Your task to perform on an android device: Do I have any events this weekend? Image 0: 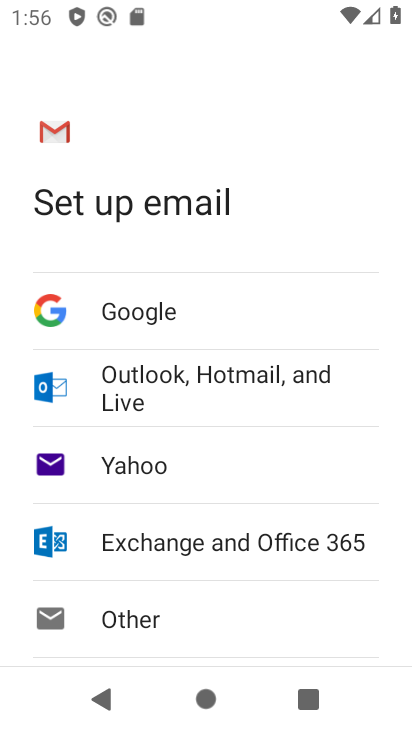
Step 0: press home button
Your task to perform on an android device: Do I have any events this weekend? Image 1: 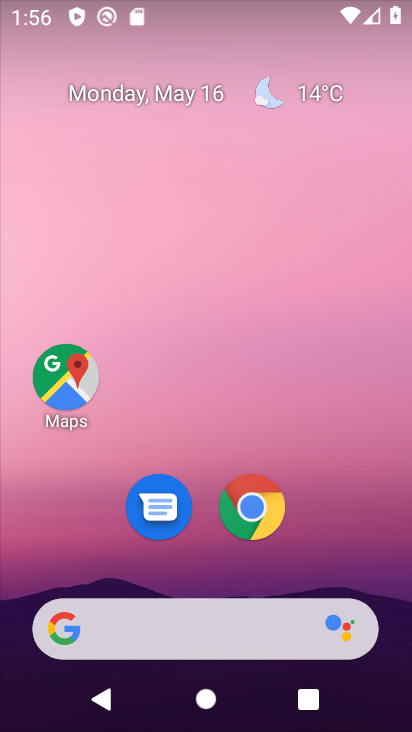
Step 1: drag from (283, 580) to (301, 218)
Your task to perform on an android device: Do I have any events this weekend? Image 2: 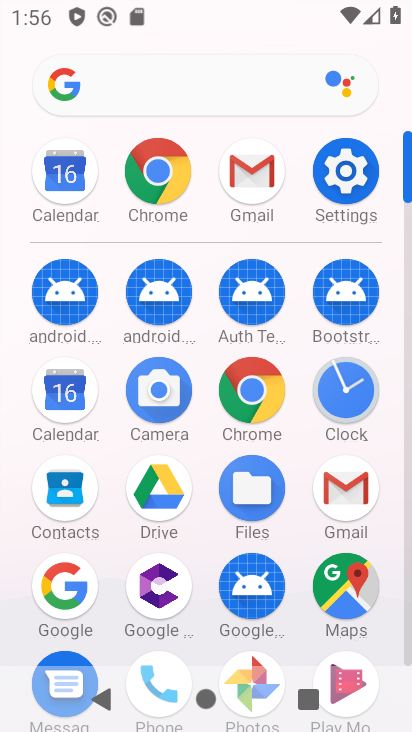
Step 2: click (70, 421)
Your task to perform on an android device: Do I have any events this weekend? Image 3: 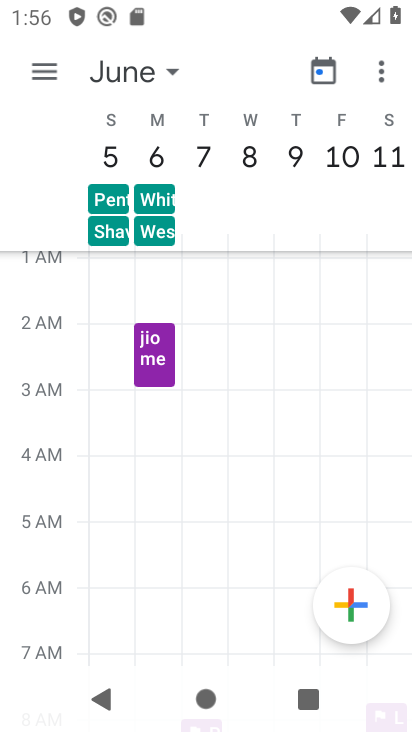
Step 3: click (168, 74)
Your task to perform on an android device: Do I have any events this weekend? Image 4: 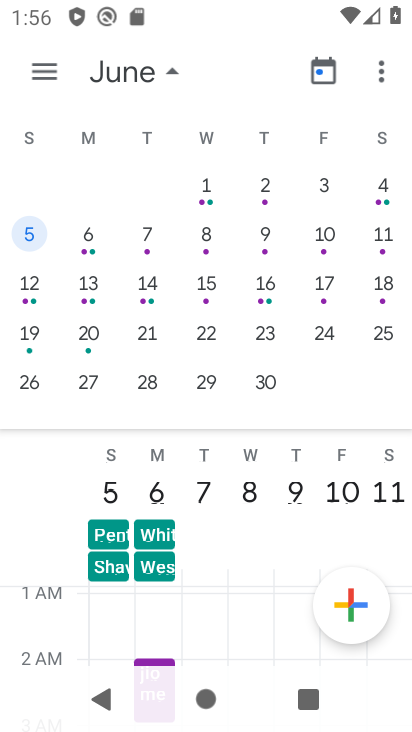
Step 4: drag from (37, 346) to (409, 303)
Your task to perform on an android device: Do I have any events this weekend? Image 5: 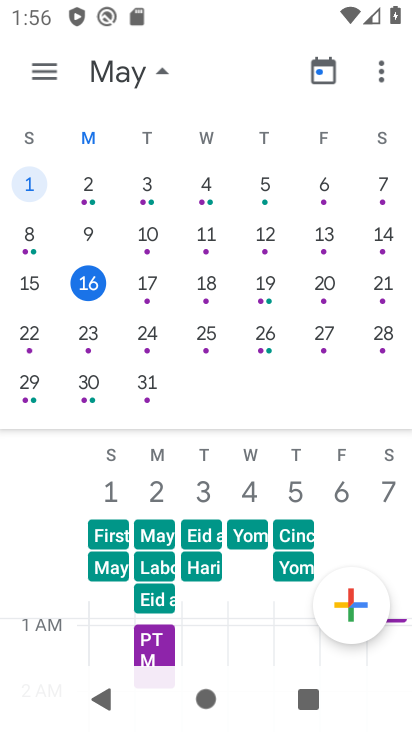
Step 5: click (153, 81)
Your task to perform on an android device: Do I have any events this weekend? Image 6: 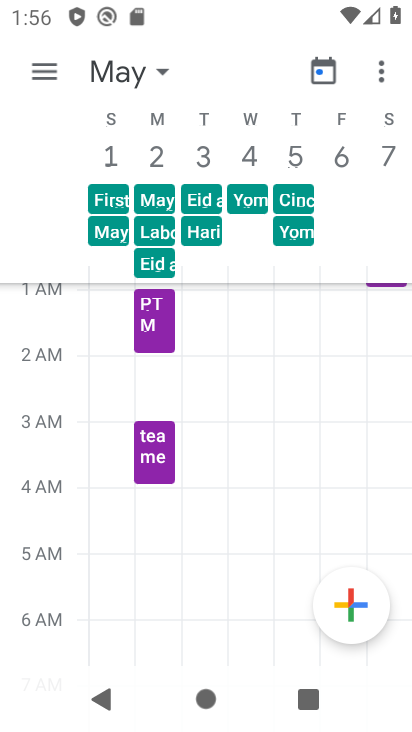
Step 6: task complete